Your task to perform on an android device: Open Reddit.com Image 0: 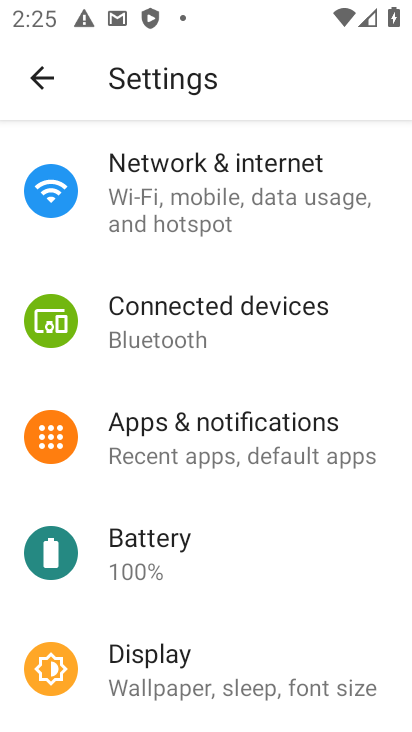
Step 0: press home button
Your task to perform on an android device: Open Reddit.com Image 1: 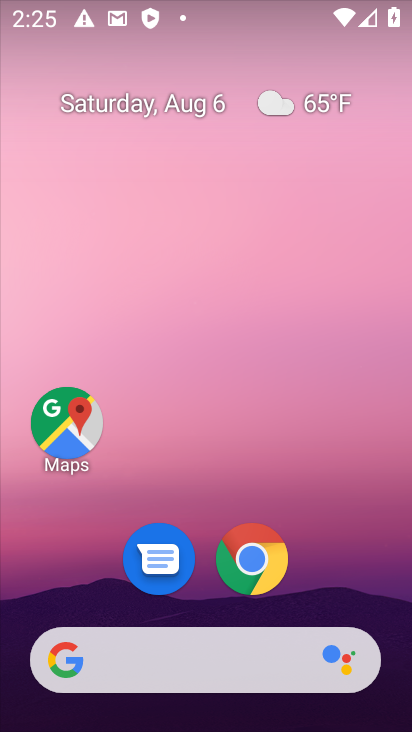
Step 1: click (251, 572)
Your task to perform on an android device: Open Reddit.com Image 2: 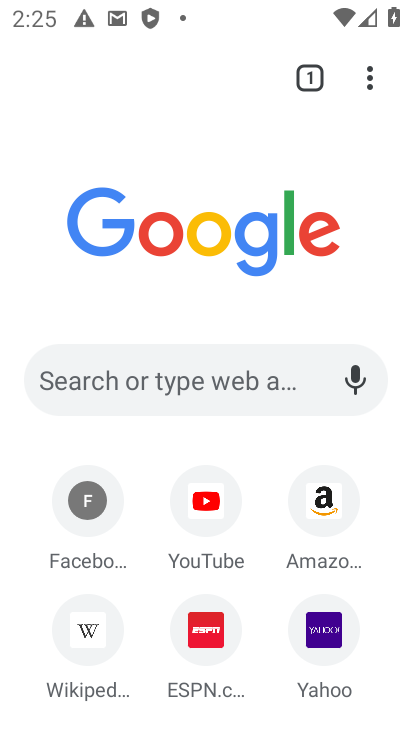
Step 2: click (215, 366)
Your task to perform on an android device: Open Reddit.com Image 3: 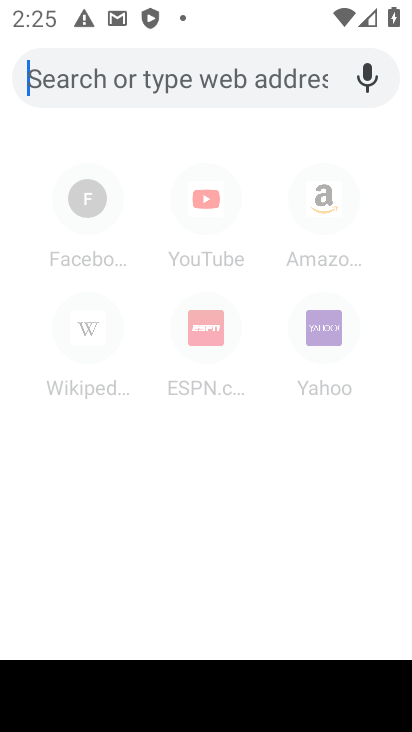
Step 3: type "Reddit.com"
Your task to perform on an android device: Open Reddit.com Image 4: 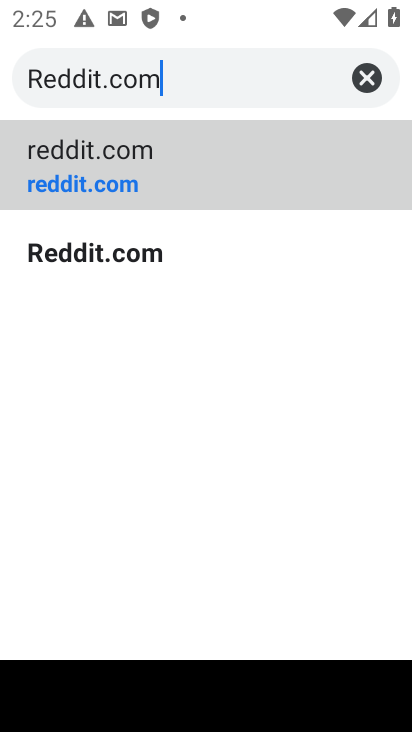
Step 4: type ""
Your task to perform on an android device: Open Reddit.com Image 5: 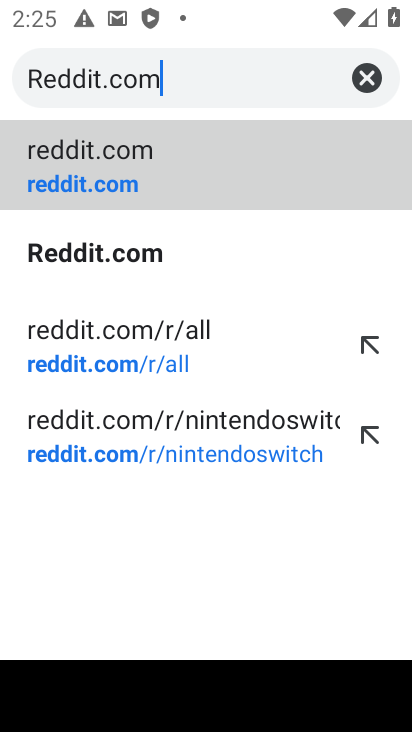
Step 5: click (249, 182)
Your task to perform on an android device: Open Reddit.com Image 6: 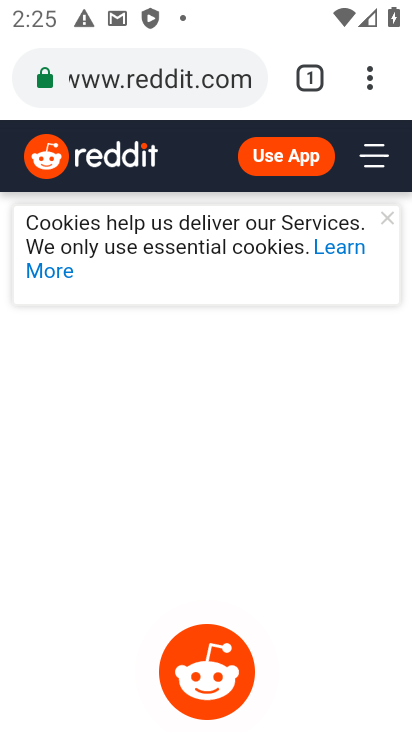
Step 6: task complete